Your task to perform on an android device: Open network settings Image 0: 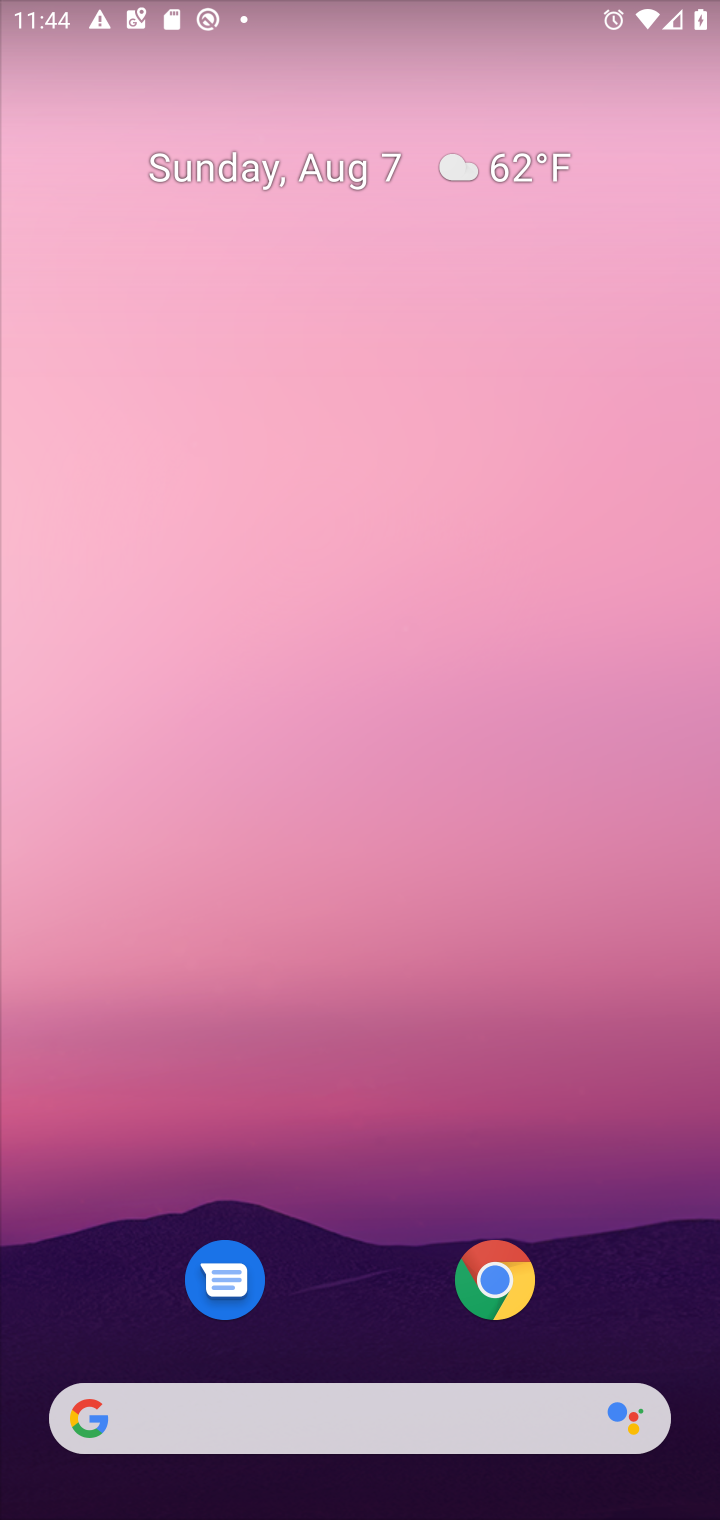
Step 0: drag from (345, 1362) to (345, 348)
Your task to perform on an android device: Open network settings Image 1: 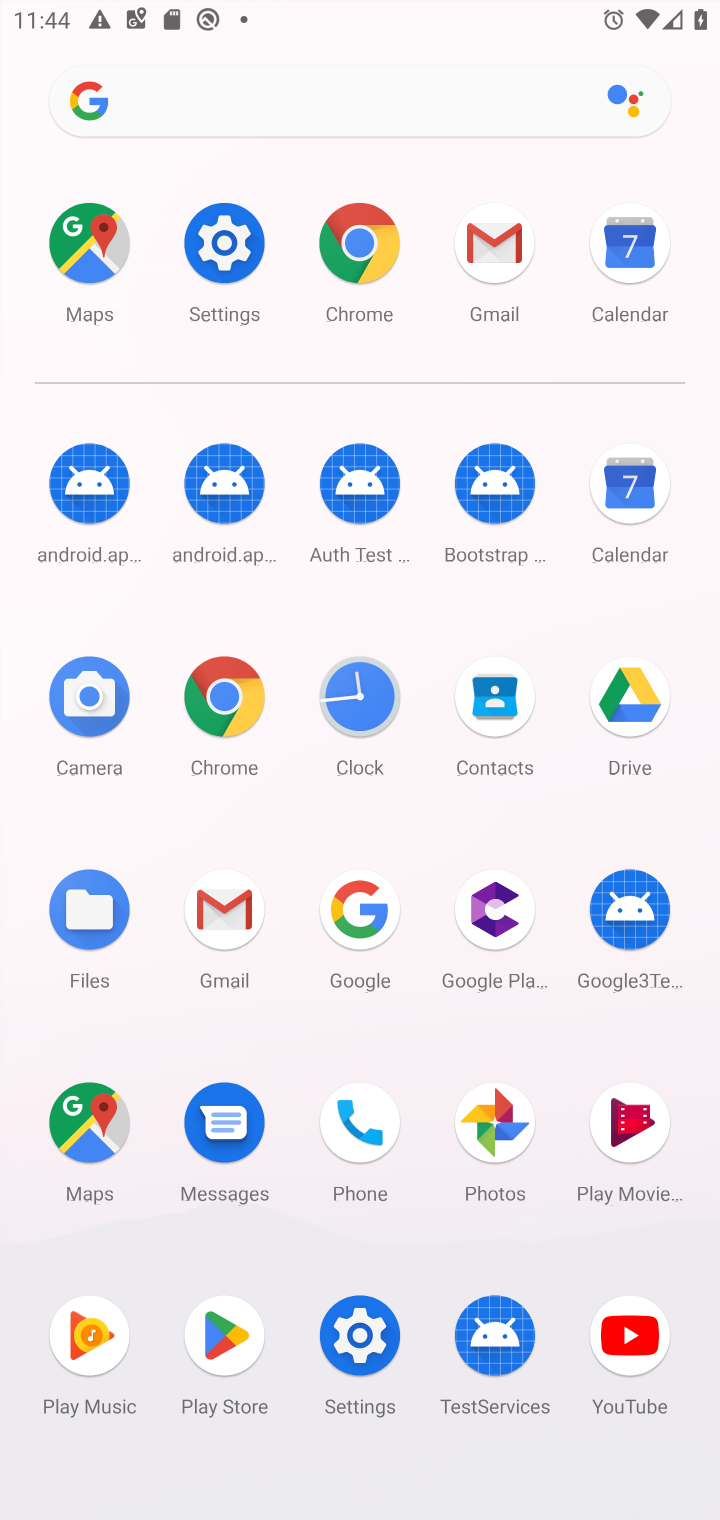
Step 1: click (233, 242)
Your task to perform on an android device: Open network settings Image 2: 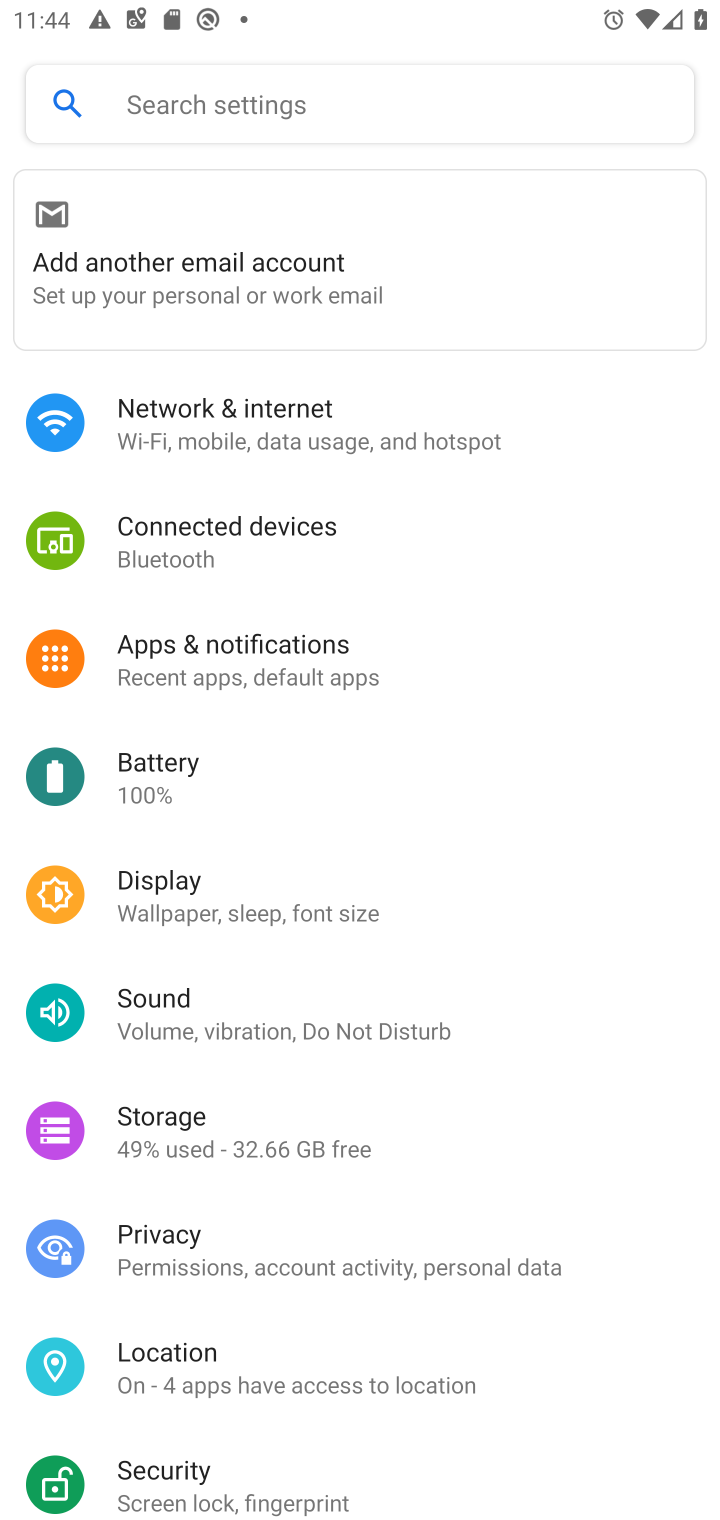
Step 2: click (188, 404)
Your task to perform on an android device: Open network settings Image 3: 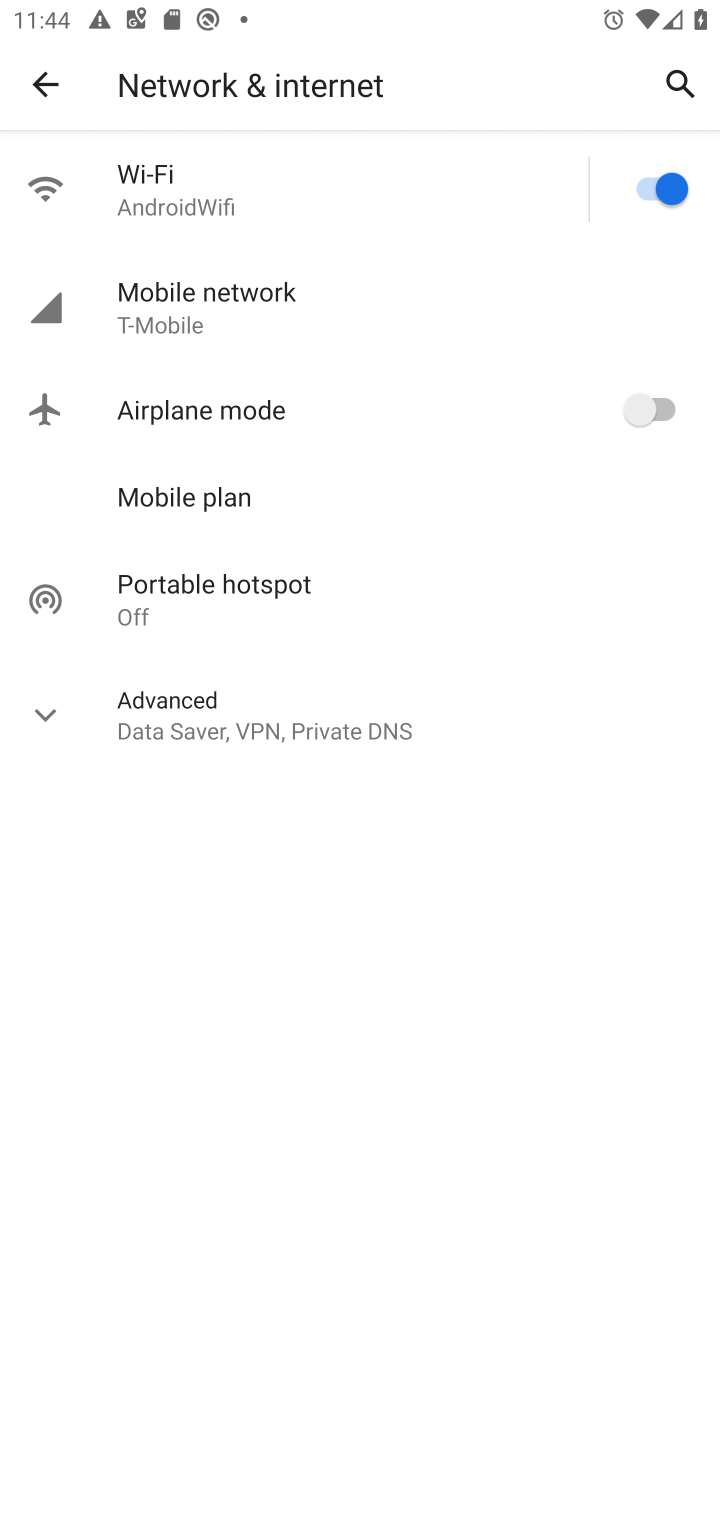
Step 3: task complete